Your task to perform on an android device: Go to location settings Image 0: 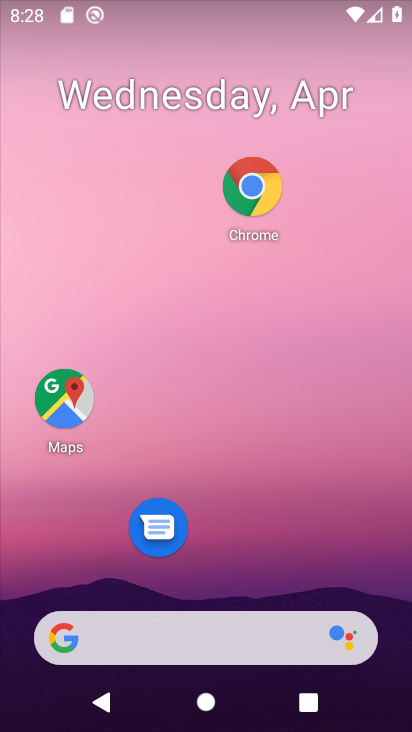
Step 0: drag from (248, 483) to (293, 166)
Your task to perform on an android device: Go to location settings Image 1: 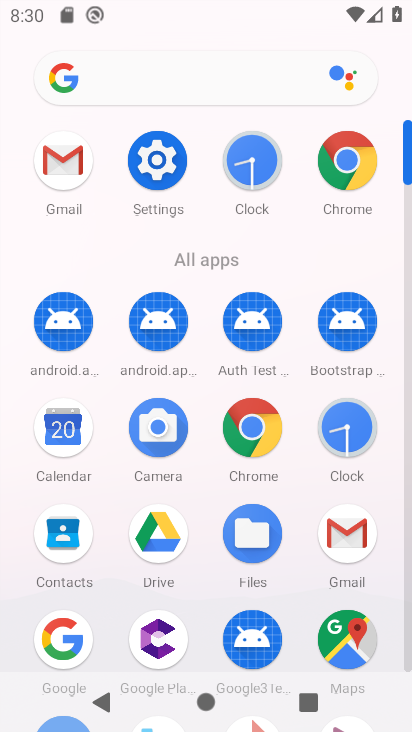
Step 1: click (161, 165)
Your task to perform on an android device: Go to location settings Image 2: 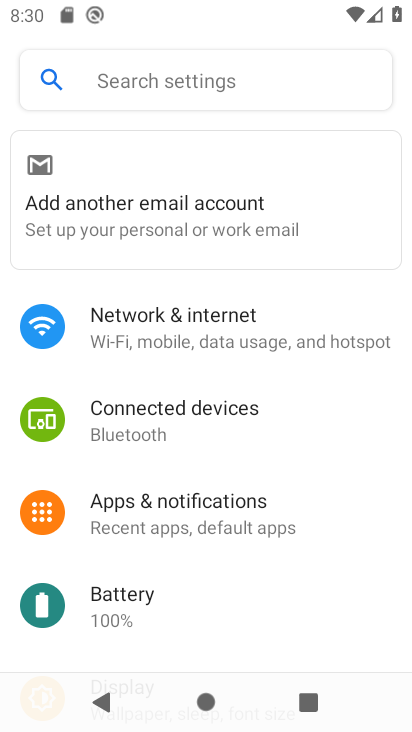
Step 2: drag from (172, 595) to (272, 82)
Your task to perform on an android device: Go to location settings Image 3: 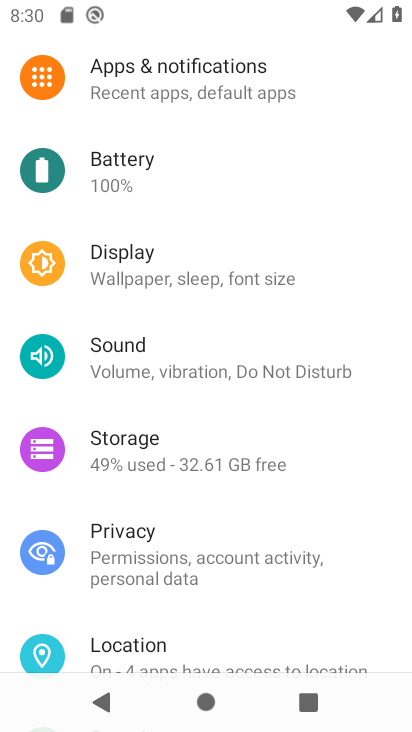
Step 3: click (157, 645)
Your task to perform on an android device: Go to location settings Image 4: 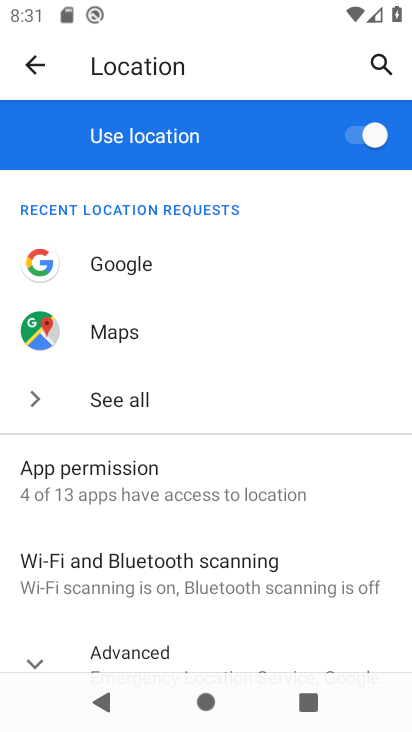
Step 4: task complete